Your task to perform on an android device: move an email to a new category in the gmail app Image 0: 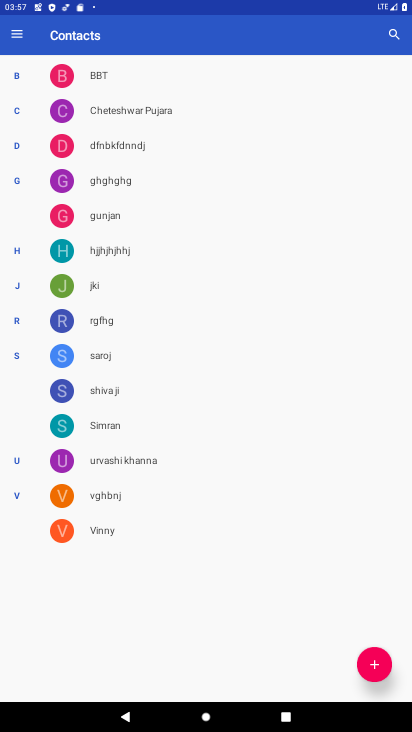
Step 0: press home button
Your task to perform on an android device: move an email to a new category in the gmail app Image 1: 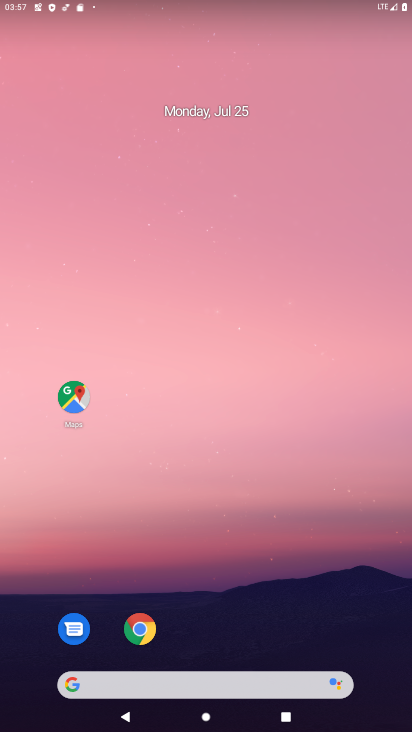
Step 1: drag from (259, 655) to (251, 15)
Your task to perform on an android device: move an email to a new category in the gmail app Image 2: 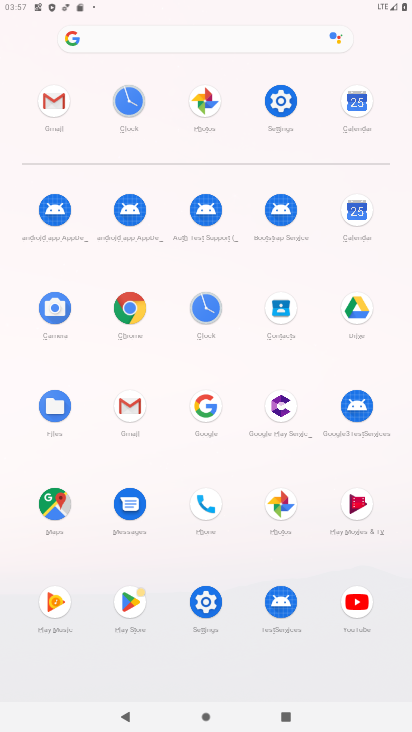
Step 2: click (56, 96)
Your task to perform on an android device: move an email to a new category in the gmail app Image 3: 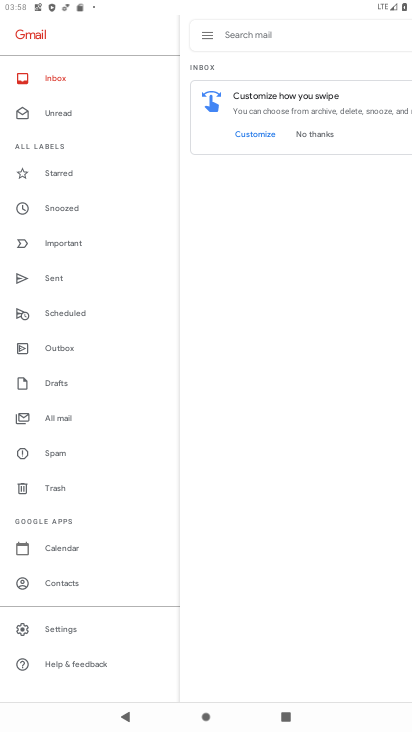
Step 3: click (61, 426)
Your task to perform on an android device: move an email to a new category in the gmail app Image 4: 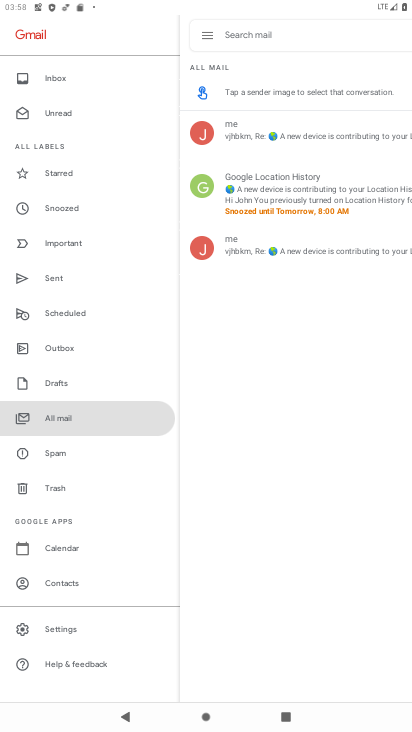
Step 4: click (345, 139)
Your task to perform on an android device: move an email to a new category in the gmail app Image 5: 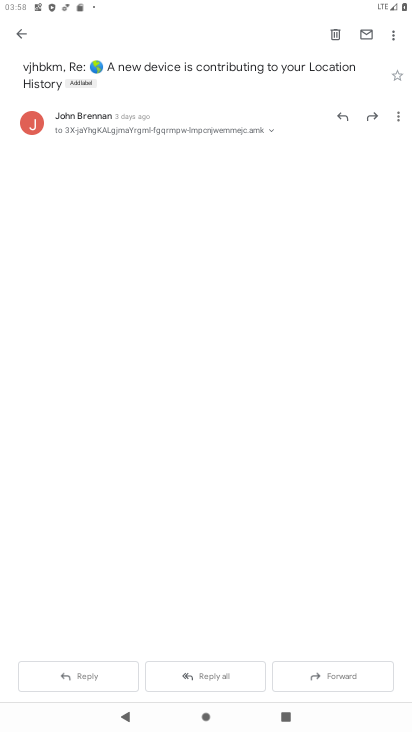
Step 5: click (392, 46)
Your task to perform on an android device: move an email to a new category in the gmail app Image 6: 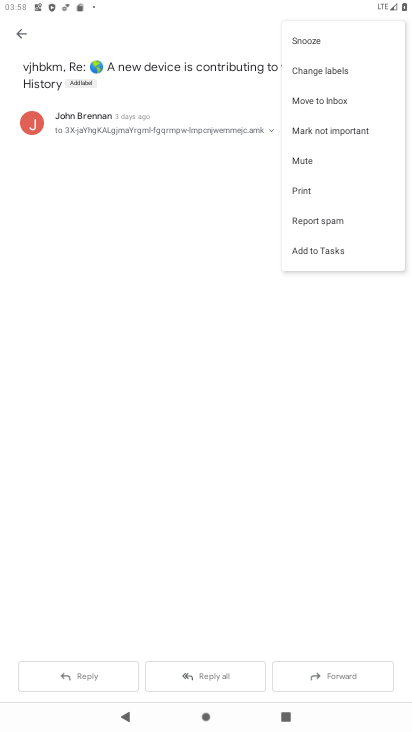
Step 6: click (342, 130)
Your task to perform on an android device: move an email to a new category in the gmail app Image 7: 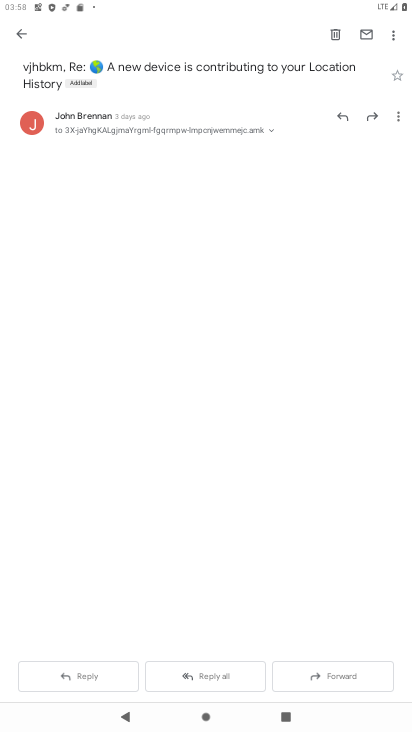
Step 7: task complete